Your task to perform on an android device: How much does a 2 bedroom apartment rent for in Houston? Image 0: 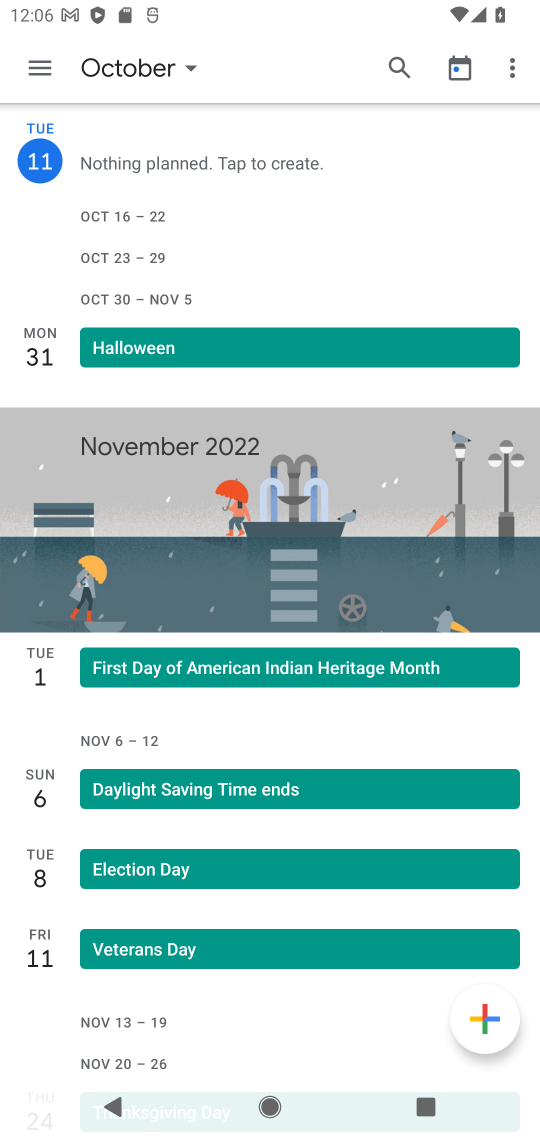
Step 0: press home button
Your task to perform on an android device: How much does a 2 bedroom apartment rent for in Houston? Image 1: 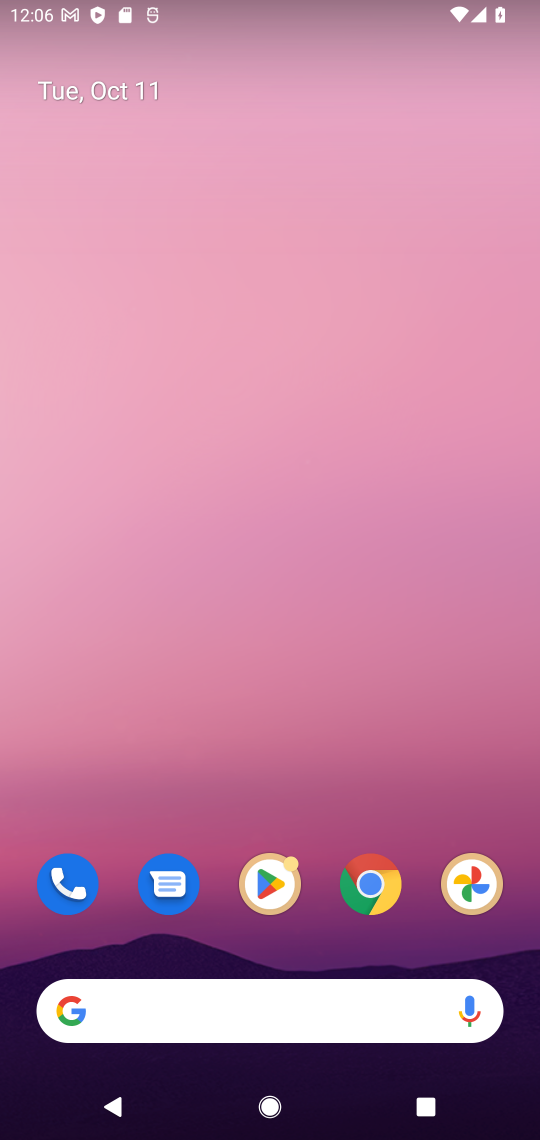
Step 1: click (261, 1013)
Your task to perform on an android device: How much does a 2 bedroom apartment rent for in Houston? Image 2: 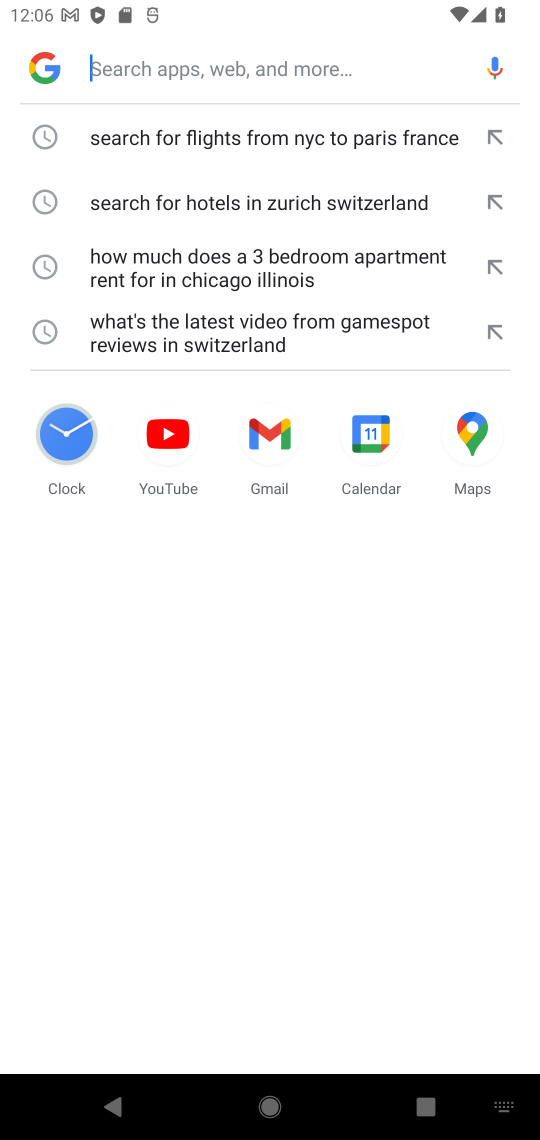
Step 2: type "How much does a 2 bedroom apartment rent for in Houston?"
Your task to perform on an android device: How much does a 2 bedroom apartment rent for in Houston? Image 3: 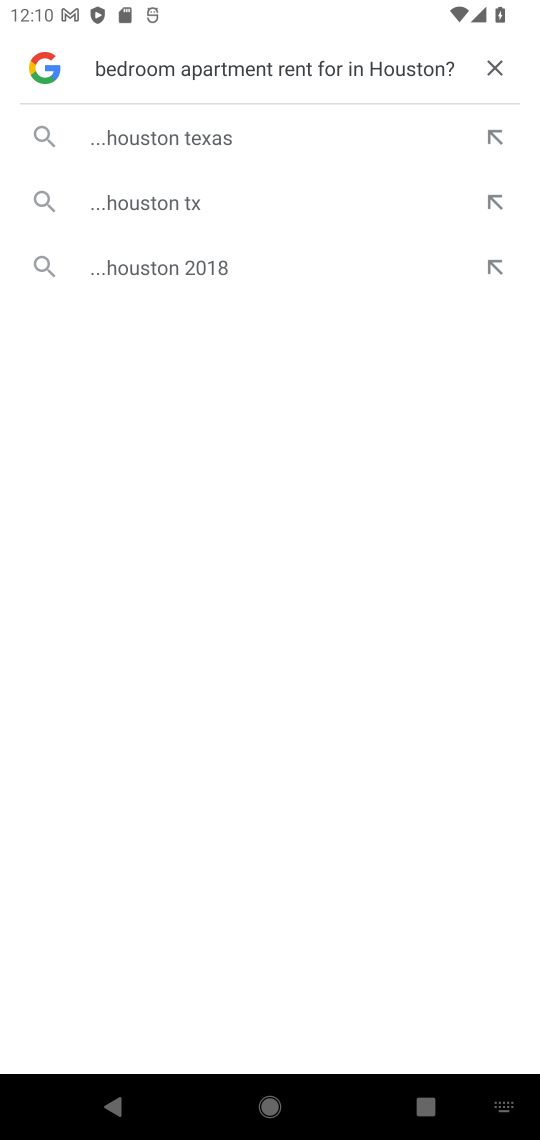
Step 3: click (224, 137)
Your task to perform on an android device: How much does a 2 bedroom apartment rent for in Houston? Image 4: 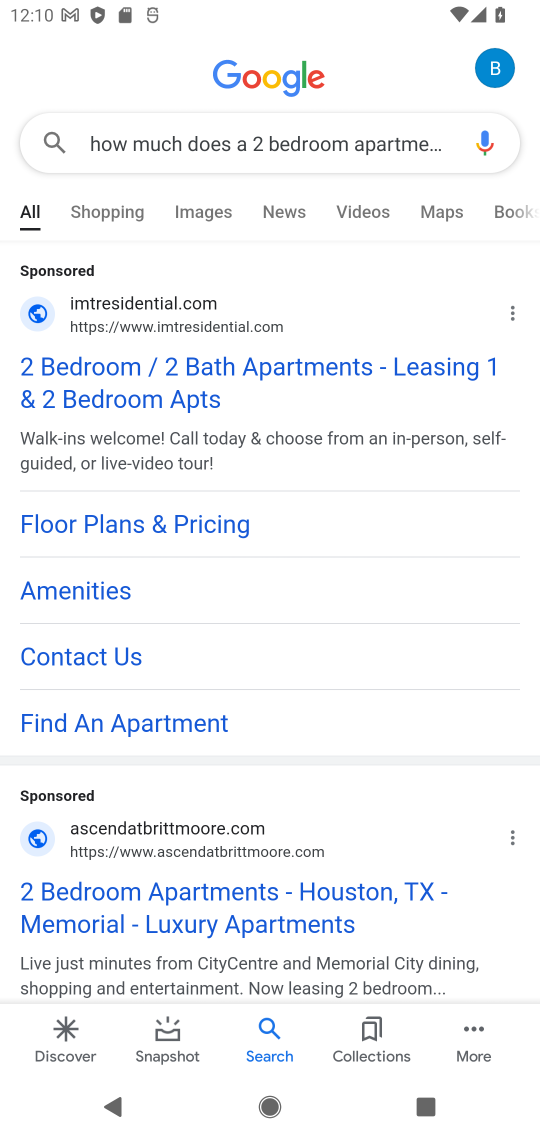
Step 4: task complete